Your task to perform on an android device: turn vacation reply on in the gmail app Image 0: 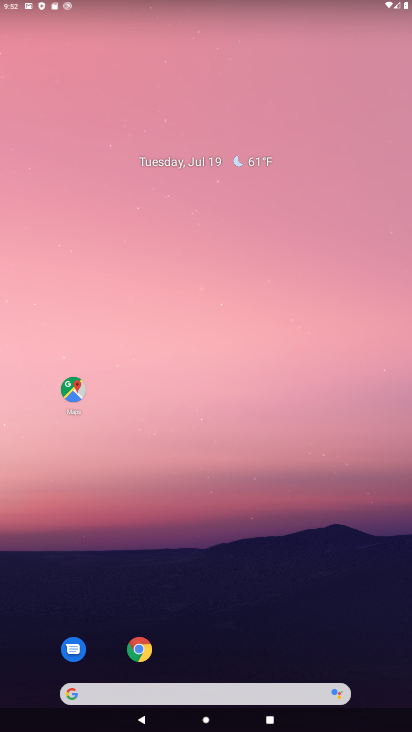
Step 0: drag from (376, 621) to (288, 14)
Your task to perform on an android device: turn vacation reply on in the gmail app Image 1: 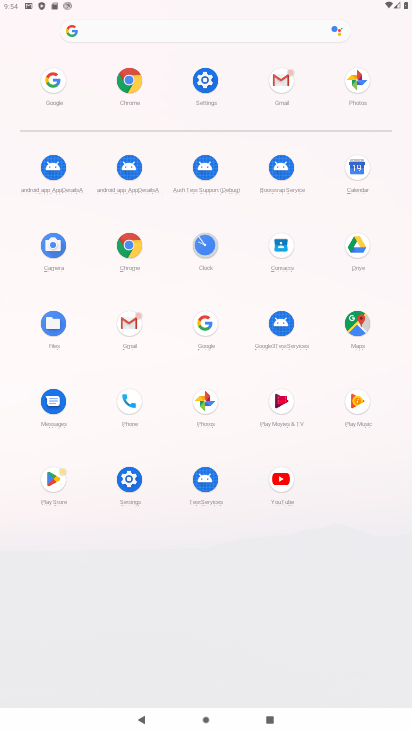
Step 1: click (129, 335)
Your task to perform on an android device: turn vacation reply on in the gmail app Image 2: 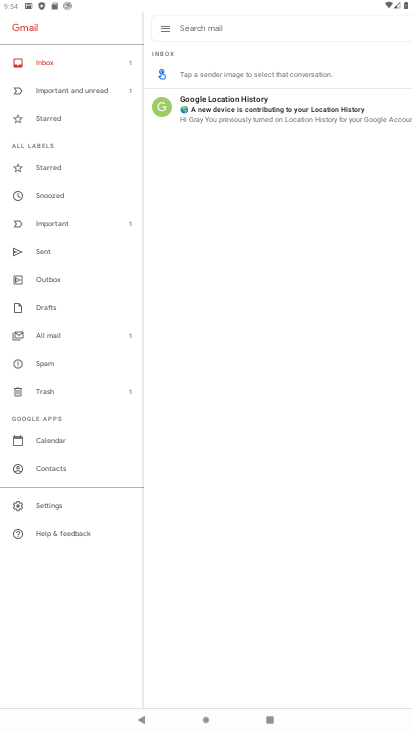
Step 2: click (52, 509)
Your task to perform on an android device: turn vacation reply on in the gmail app Image 3: 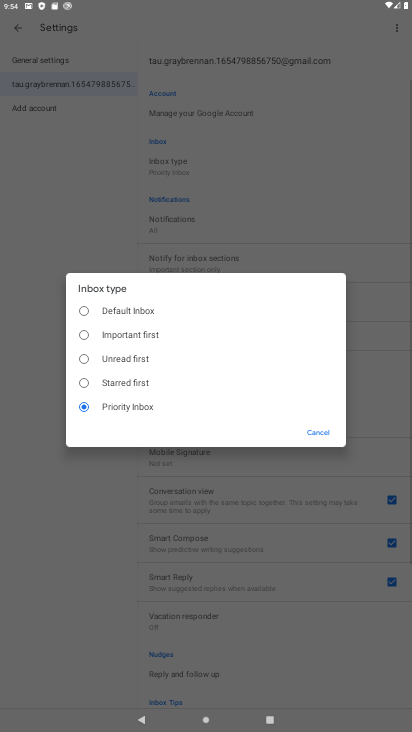
Step 3: click (317, 429)
Your task to perform on an android device: turn vacation reply on in the gmail app Image 4: 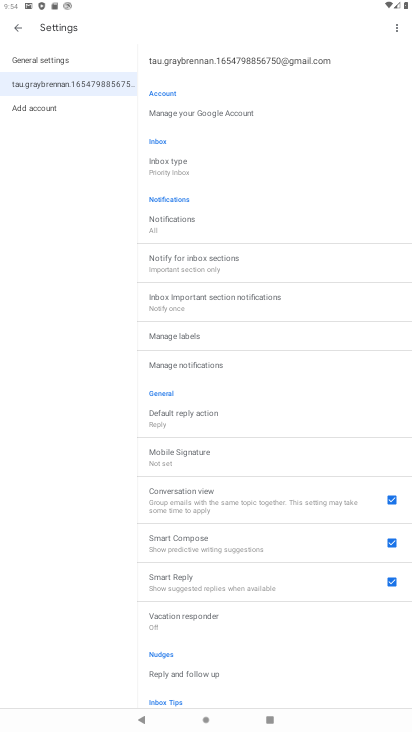
Step 4: drag from (201, 613) to (202, 142)
Your task to perform on an android device: turn vacation reply on in the gmail app Image 5: 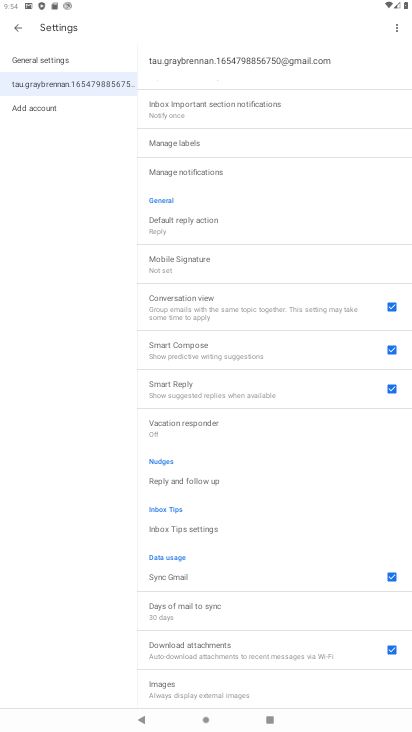
Step 5: click (212, 432)
Your task to perform on an android device: turn vacation reply on in the gmail app Image 6: 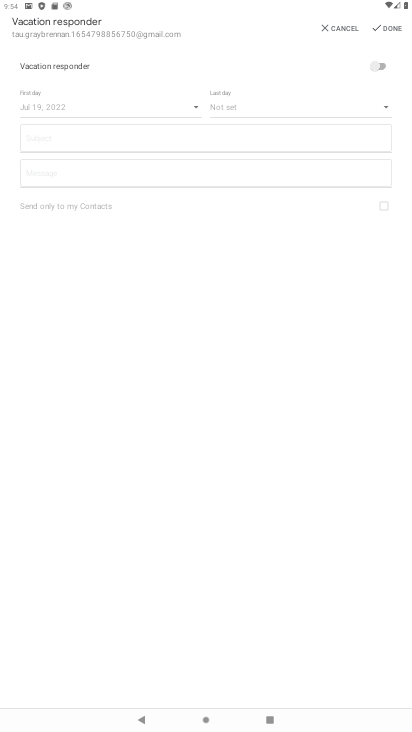
Step 6: click (374, 60)
Your task to perform on an android device: turn vacation reply on in the gmail app Image 7: 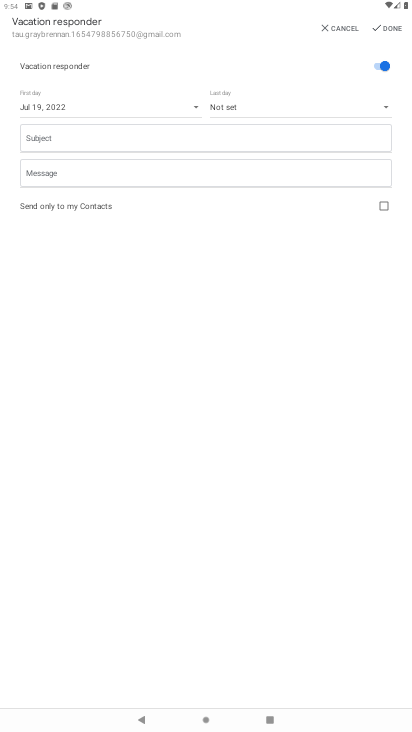
Step 7: task complete